Your task to perform on an android device: change the clock display to digital Image 0: 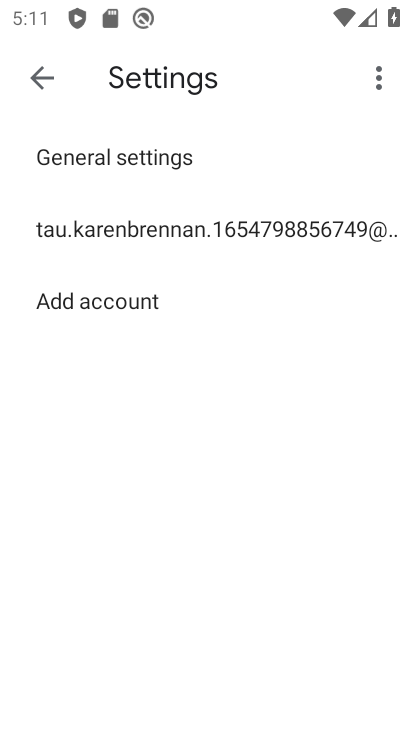
Step 0: press home button
Your task to perform on an android device: change the clock display to digital Image 1: 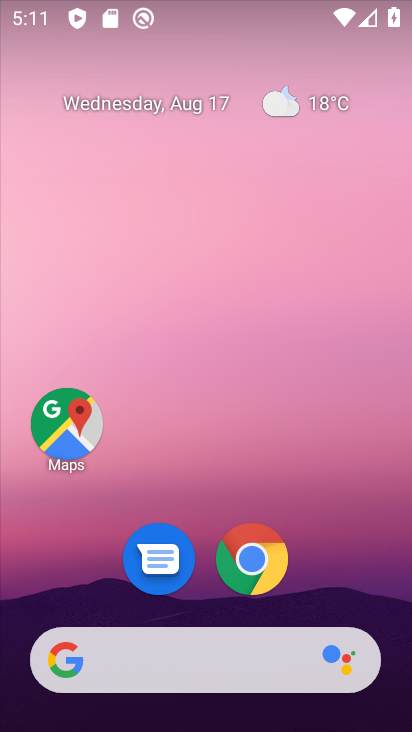
Step 1: drag from (190, 641) to (147, 94)
Your task to perform on an android device: change the clock display to digital Image 2: 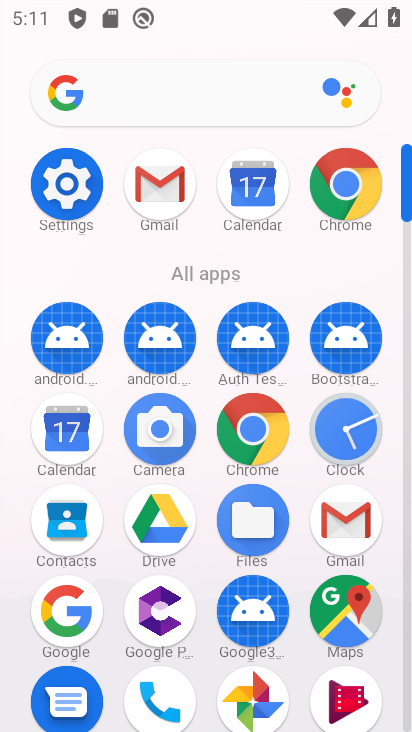
Step 2: click (343, 420)
Your task to perform on an android device: change the clock display to digital Image 3: 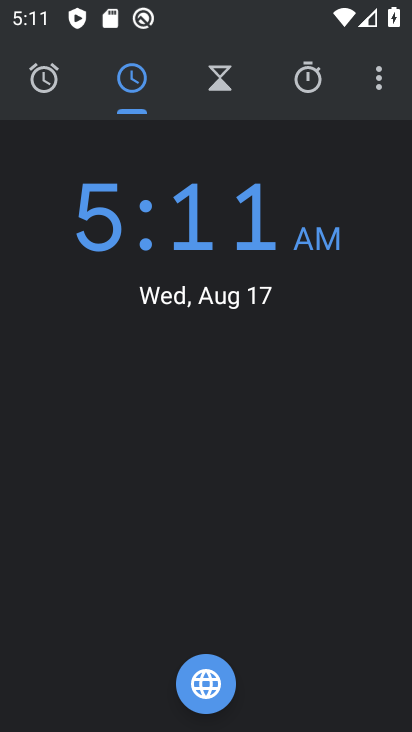
Step 3: click (382, 69)
Your task to perform on an android device: change the clock display to digital Image 4: 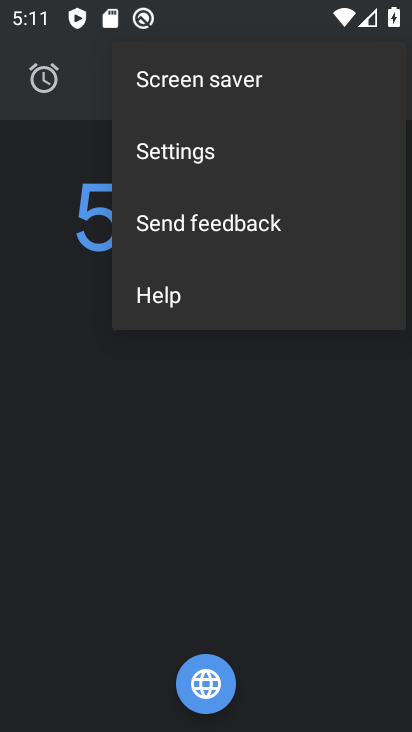
Step 4: click (243, 138)
Your task to perform on an android device: change the clock display to digital Image 5: 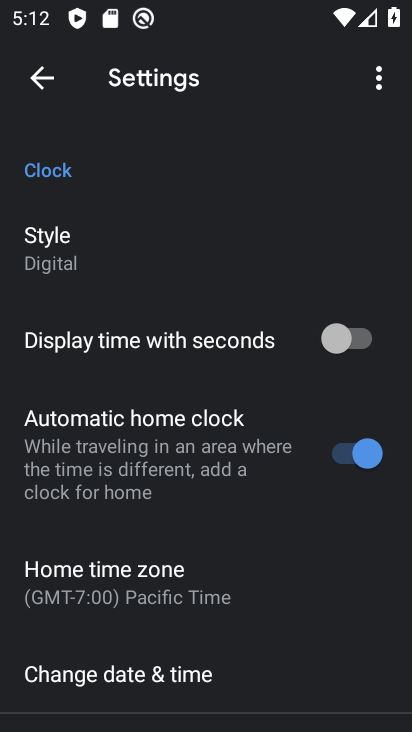
Step 5: click (57, 254)
Your task to perform on an android device: change the clock display to digital Image 6: 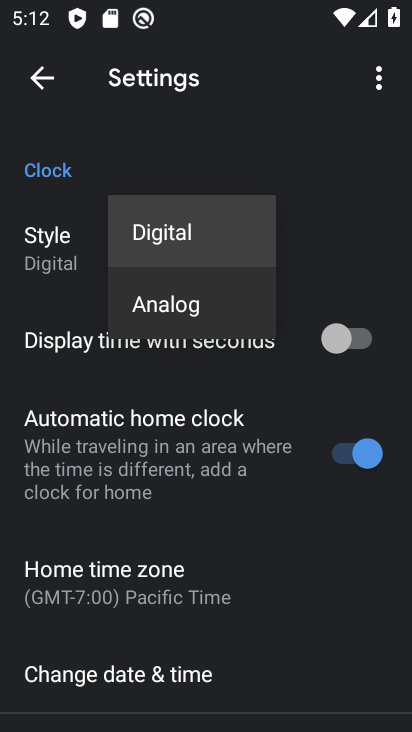
Step 6: click (189, 237)
Your task to perform on an android device: change the clock display to digital Image 7: 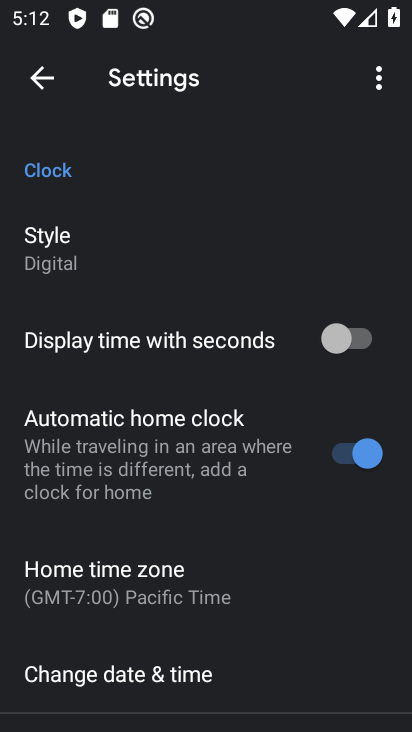
Step 7: task complete